Your task to perform on an android device: Open Chrome and go to the settings page Image 0: 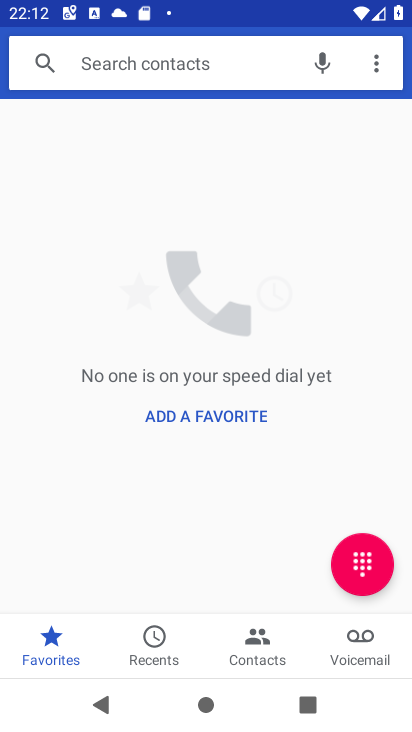
Step 0: press home button
Your task to perform on an android device: Open Chrome and go to the settings page Image 1: 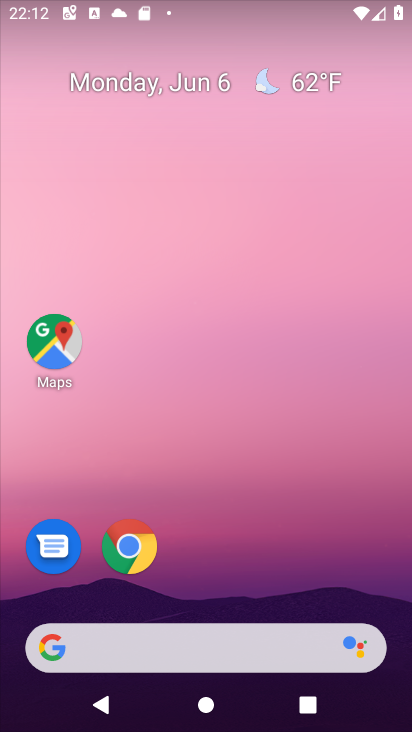
Step 1: click (131, 548)
Your task to perform on an android device: Open Chrome and go to the settings page Image 2: 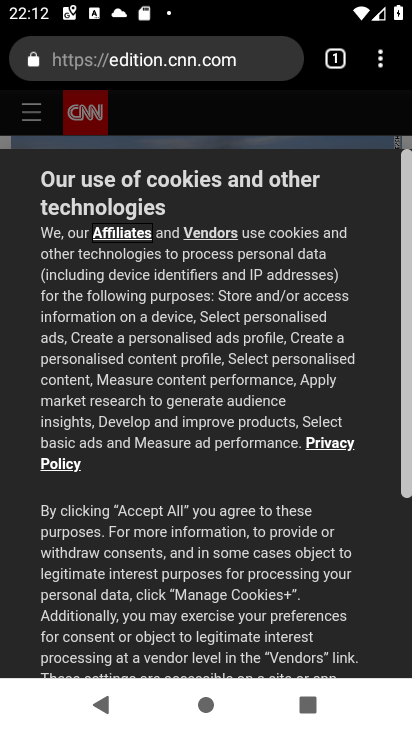
Step 2: click (379, 65)
Your task to perform on an android device: Open Chrome and go to the settings page Image 3: 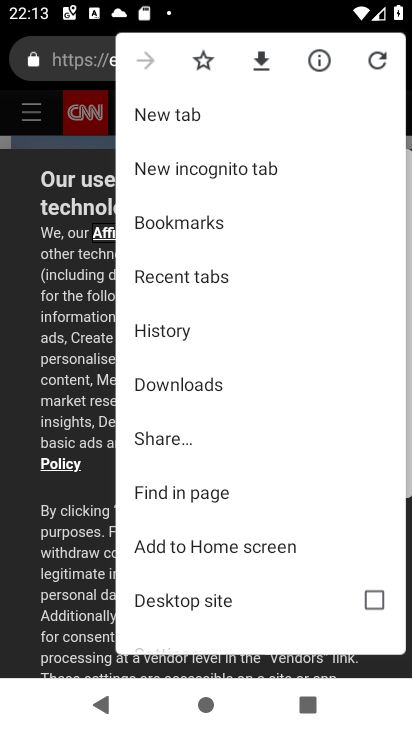
Step 3: drag from (316, 591) to (340, 259)
Your task to perform on an android device: Open Chrome and go to the settings page Image 4: 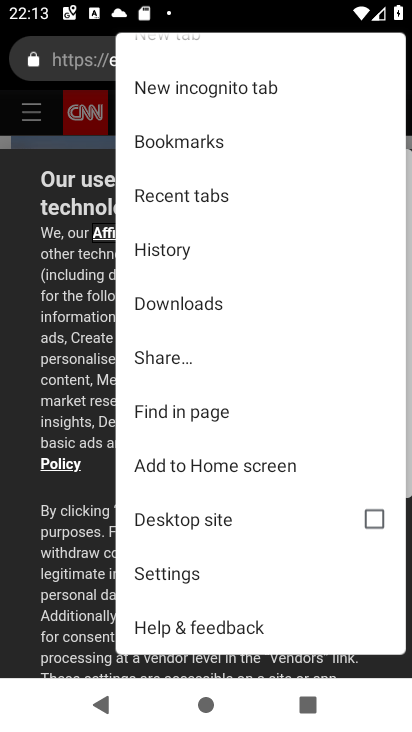
Step 4: click (164, 567)
Your task to perform on an android device: Open Chrome and go to the settings page Image 5: 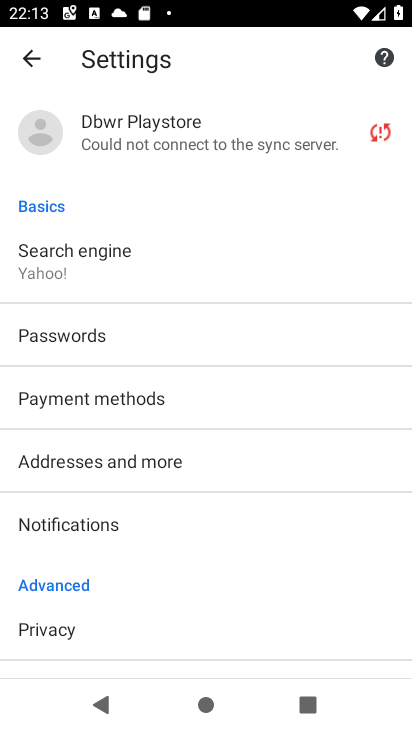
Step 5: task complete